Your task to perform on an android device: Open privacy settings Image 0: 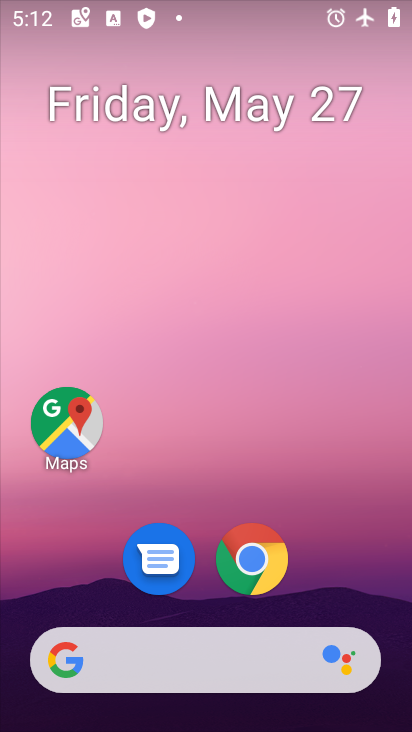
Step 0: drag from (356, 611) to (402, 56)
Your task to perform on an android device: Open privacy settings Image 1: 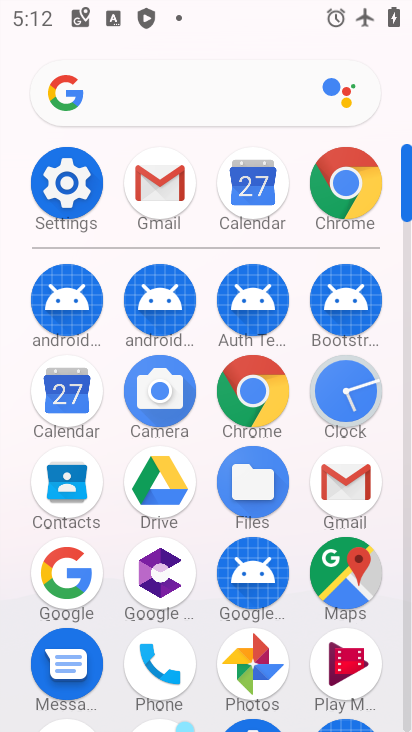
Step 1: click (85, 185)
Your task to perform on an android device: Open privacy settings Image 2: 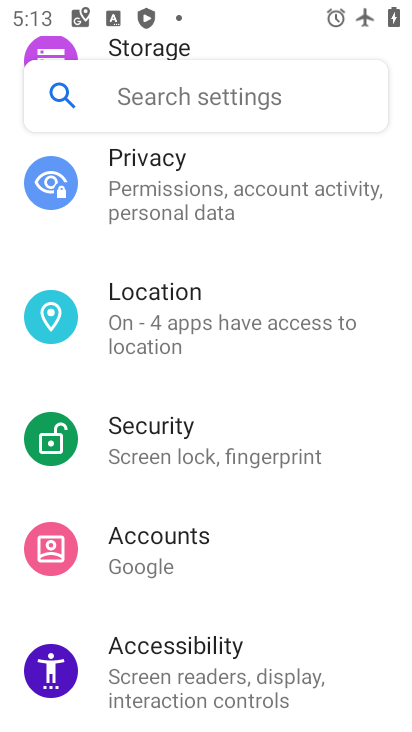
Step 2: click (198, 159)
Your task to perform on an android device: Open privacy settings Image 3: 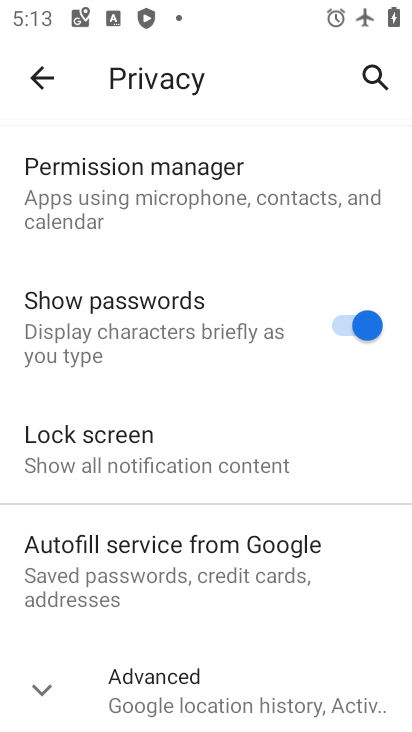
Step 3: task complete